Your task to perform on an android device: Open Google Chrome and click the shortcut for Amazon.com Image 0: 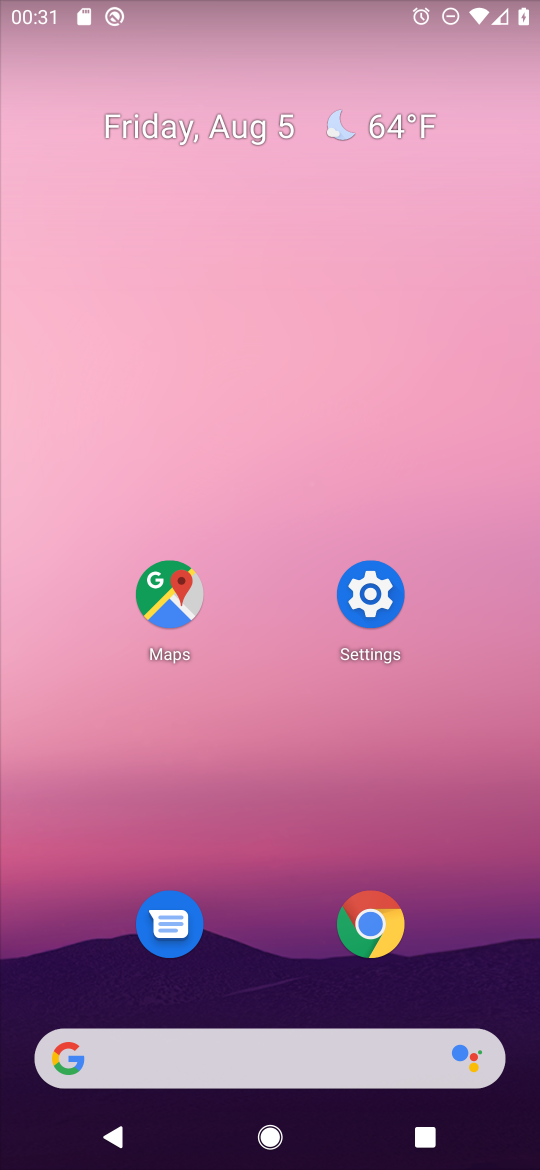
Step 0: press home button
Your task to perform on an android device: Open Google Chrome and click the shortcut for Amazon.com Image 1: 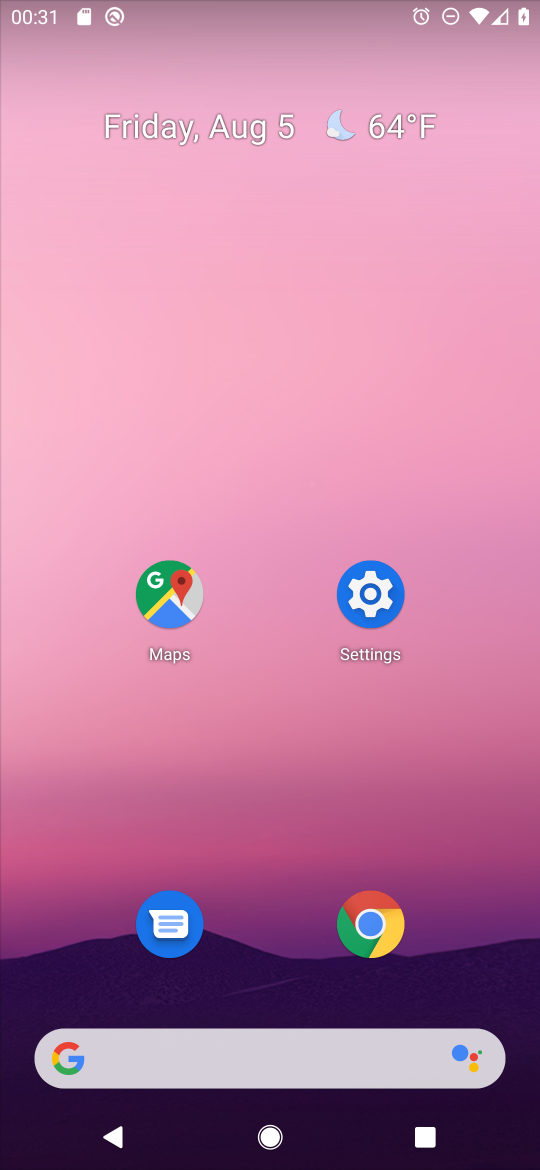
Step 1: click (374, 931)
Your task to perform on an android device: Open Google Chrome and click the shortcut for Amazon.com Image 2: 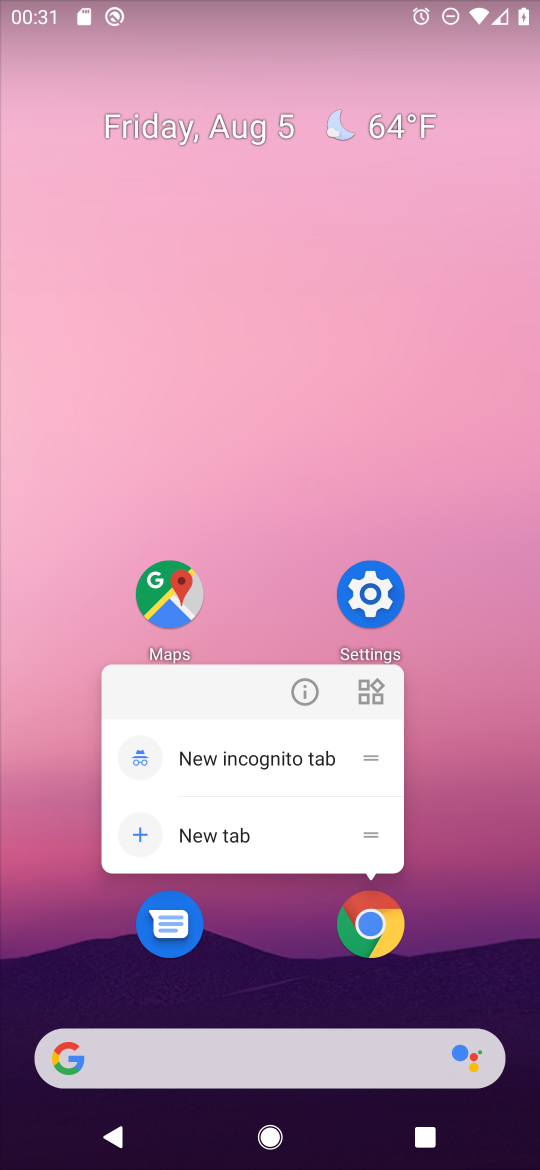
Step 2: click (374, 931)
Your task to perform on an android device: Open Google Chrome and click the shortcut for Amazon.com Image 3: 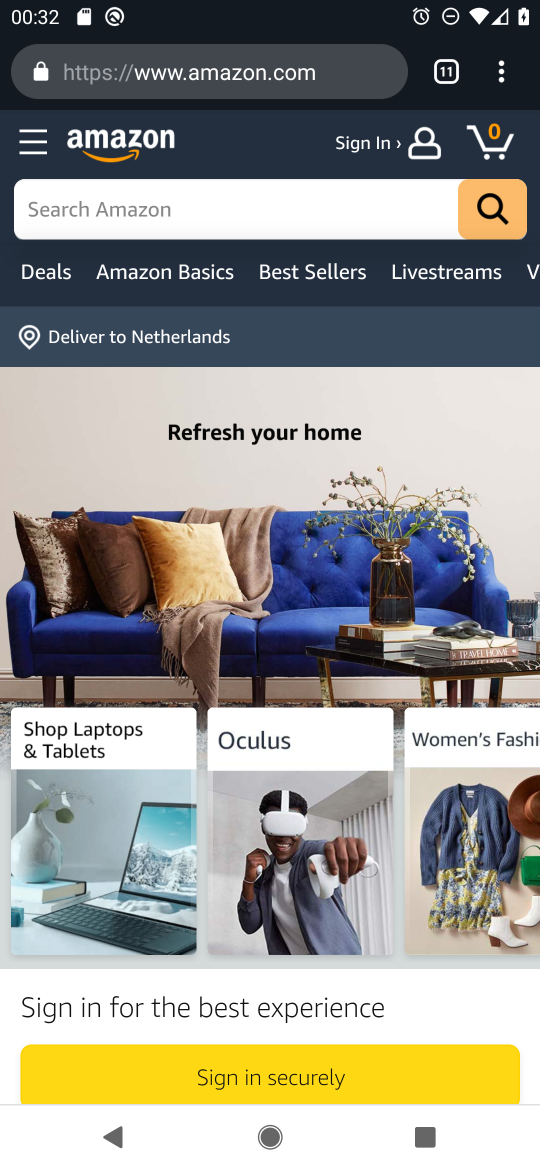
Step 3: task complete